Your task to perform on an android device: Clear the cart on walmart. Add "macbook air" to the cart on walmart, then select checkout. Image 0: 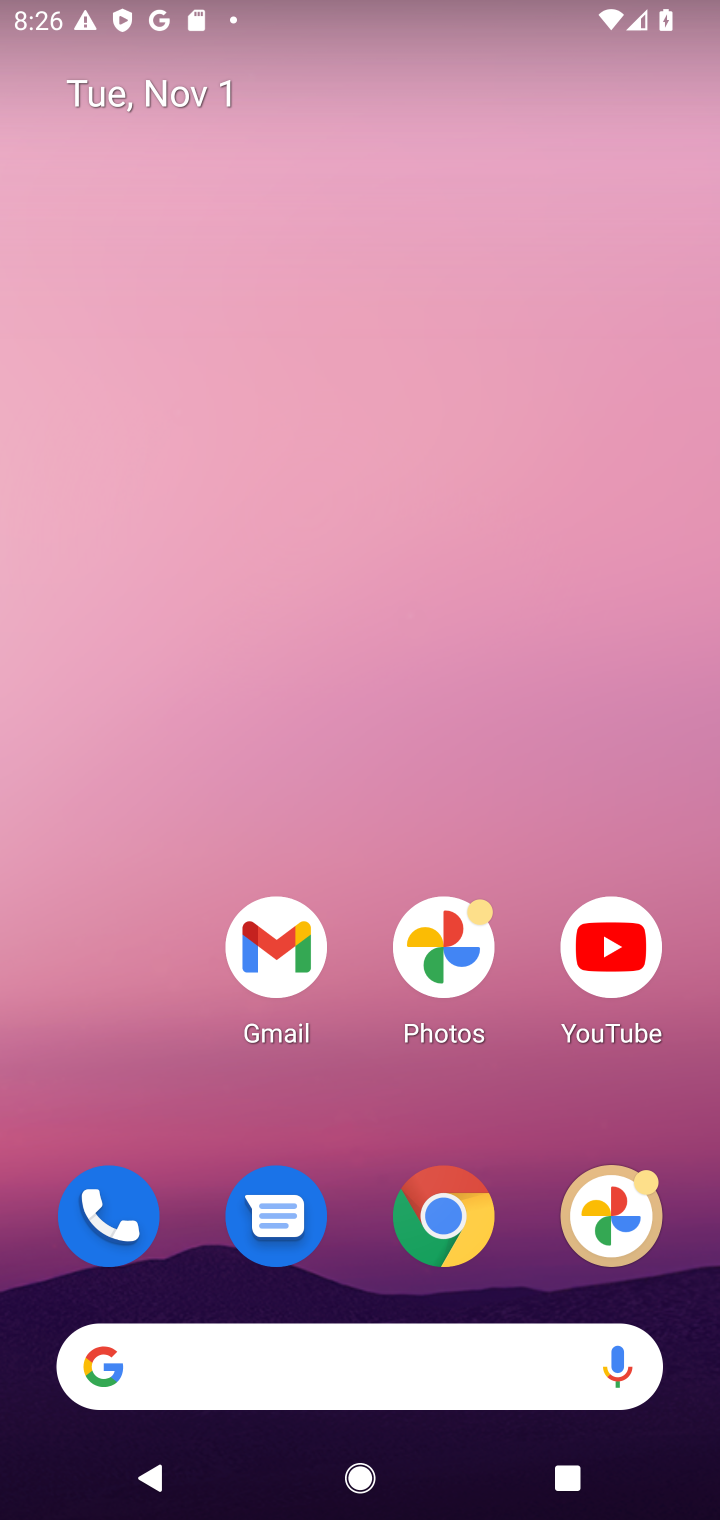
Step 0: click (440, 1215)
Your task to perform on an android device: Clear the cart on walmart. Add "macbook air" to the cart on walmart, then select checkout. Image 1: 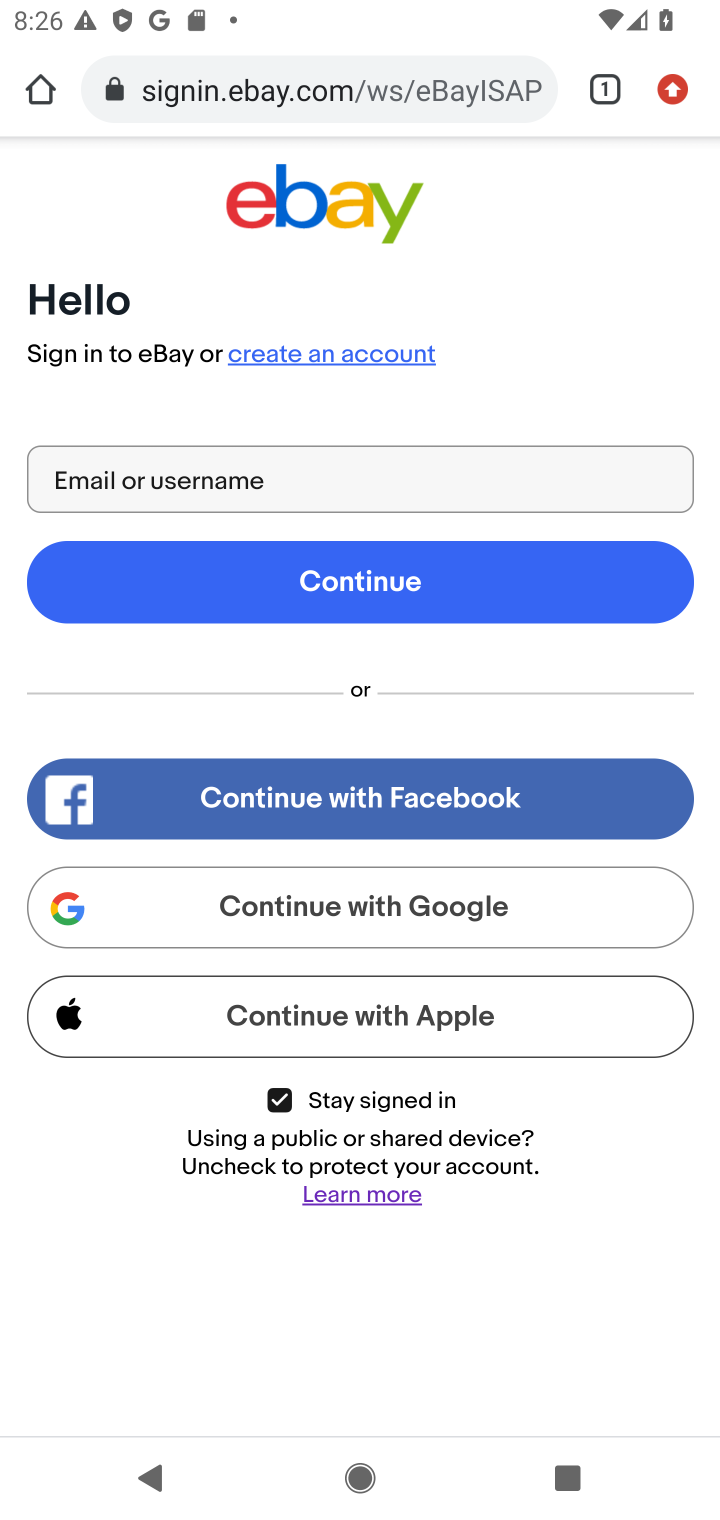
Step 1: click (399, 79)
Your task to perform on an android device: Clear the cart on walmart. Add "macbook air" to the cart on walmart, then select checkout. Image 2: 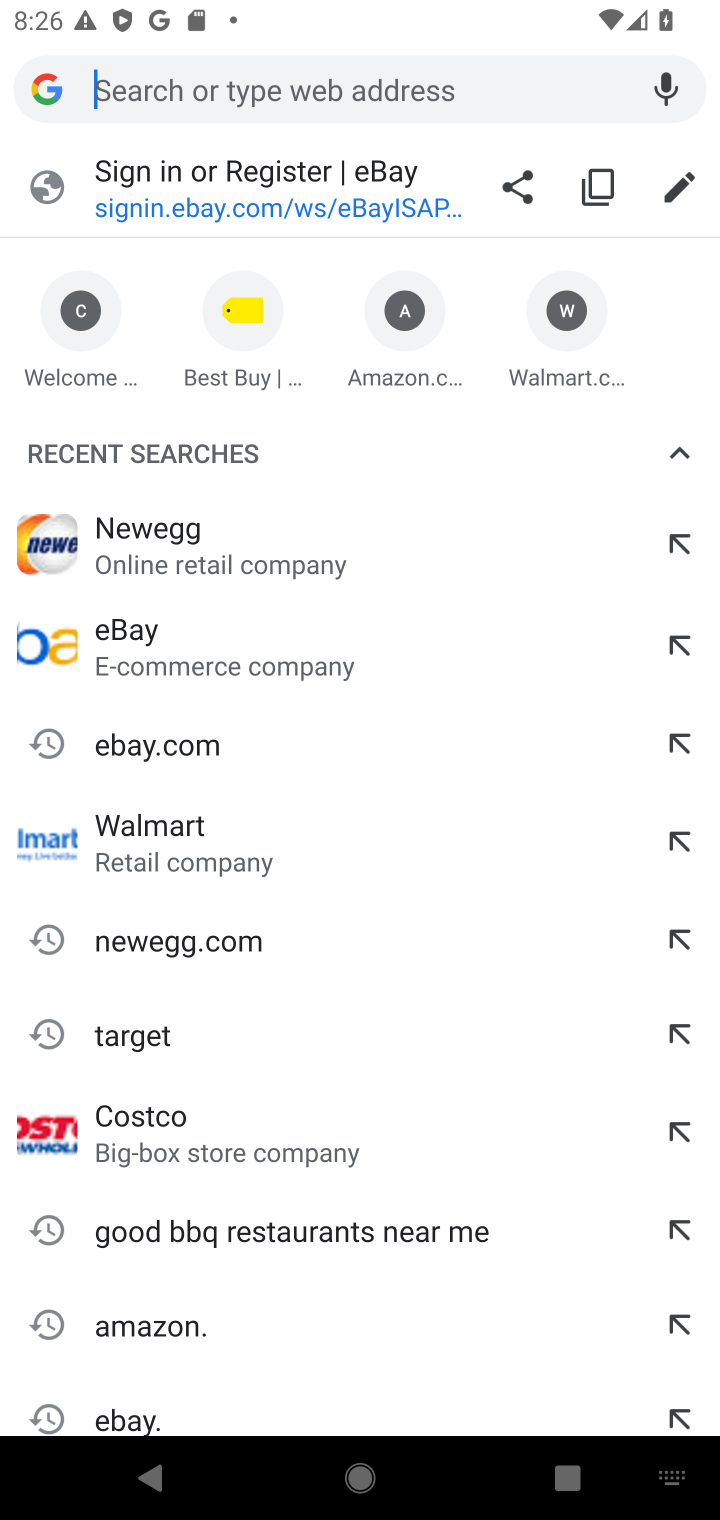
Step 2: type "walmart"
Your task to perform on an android device: Clear the cart on walmart. Add "macbook air" to the cart on walmart, then select checkout. Image 3: 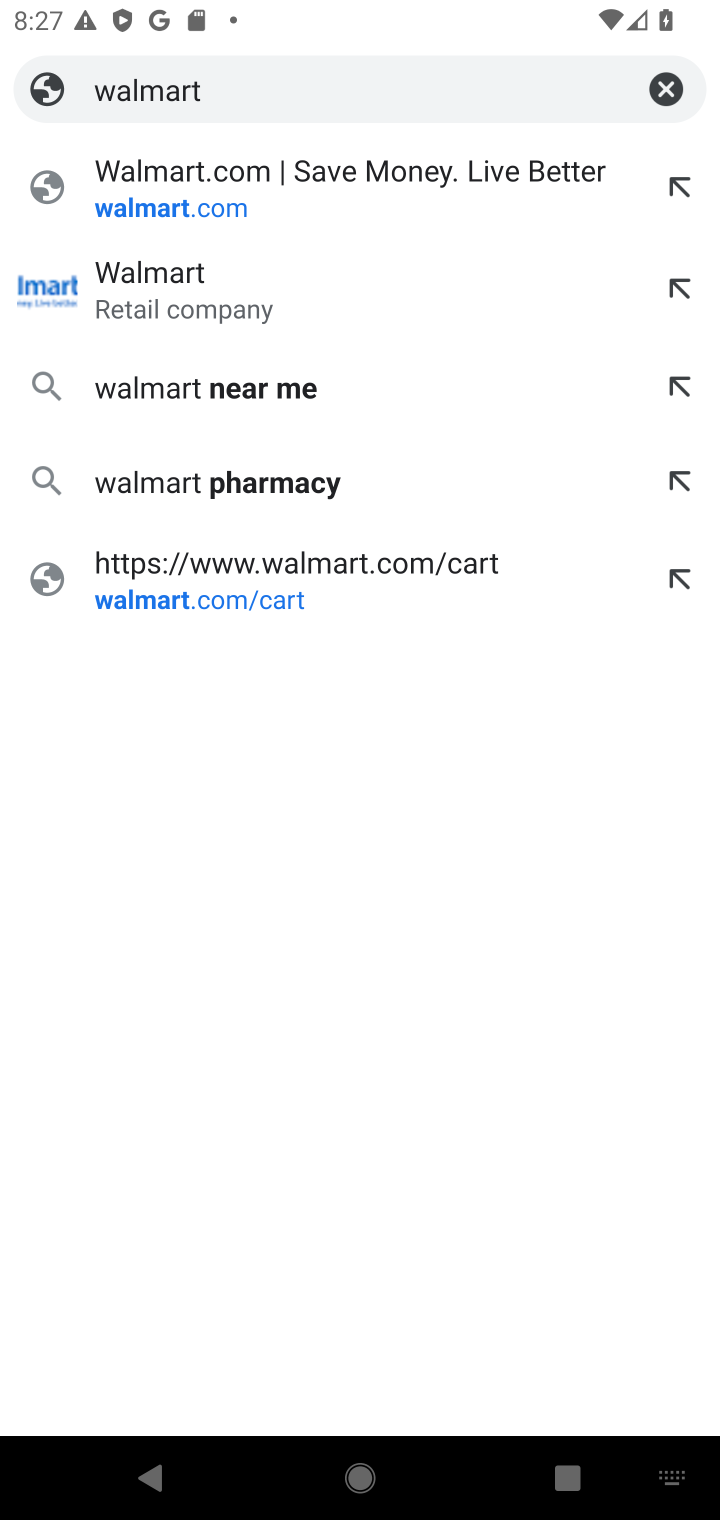
Step 3: click (217, 188)
Your task to perform on an android device: Clear the cart on walmart. Add "macbook air" to the cart on walmart, then select checkout. Image 4: 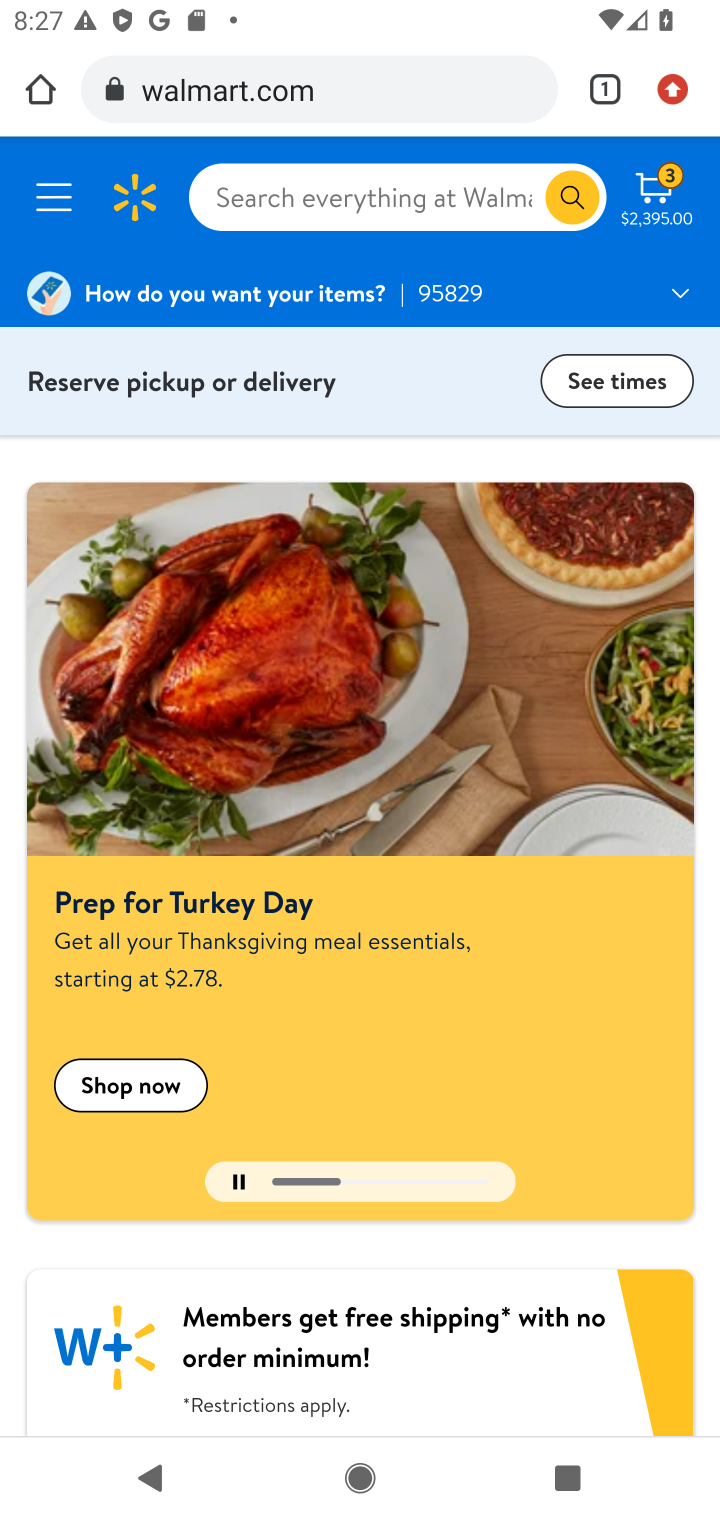
Step 4: click (440, 194)
Your task to perform on an android device: Clear the cart on walmart. Add "macbook air" to the cart on walmart, then select checkout. Image 5: 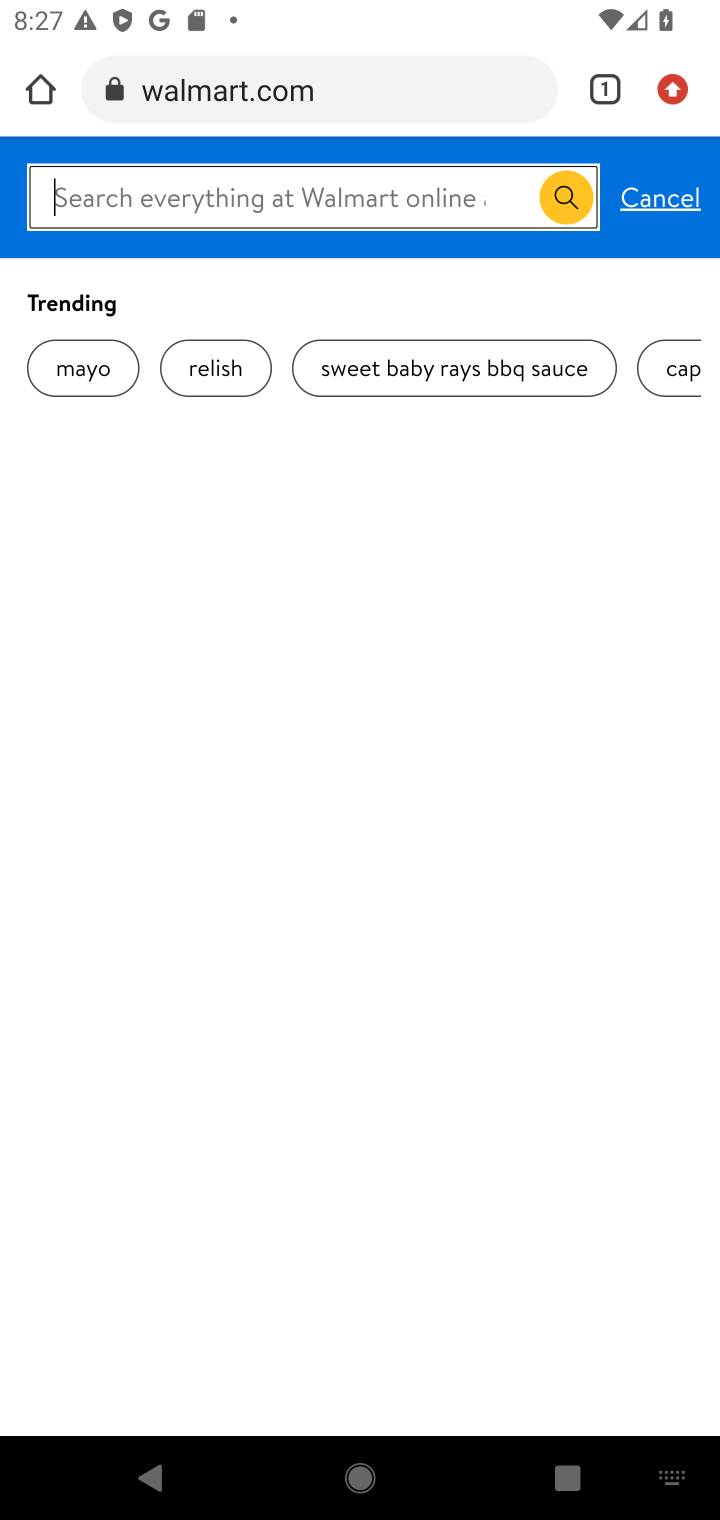
Step 5: type "macbook air"
Your task to perform on an android device: Clear the cart on walmart. Add "macbook air" to the cart on walmart, then select checkout. Image 6: 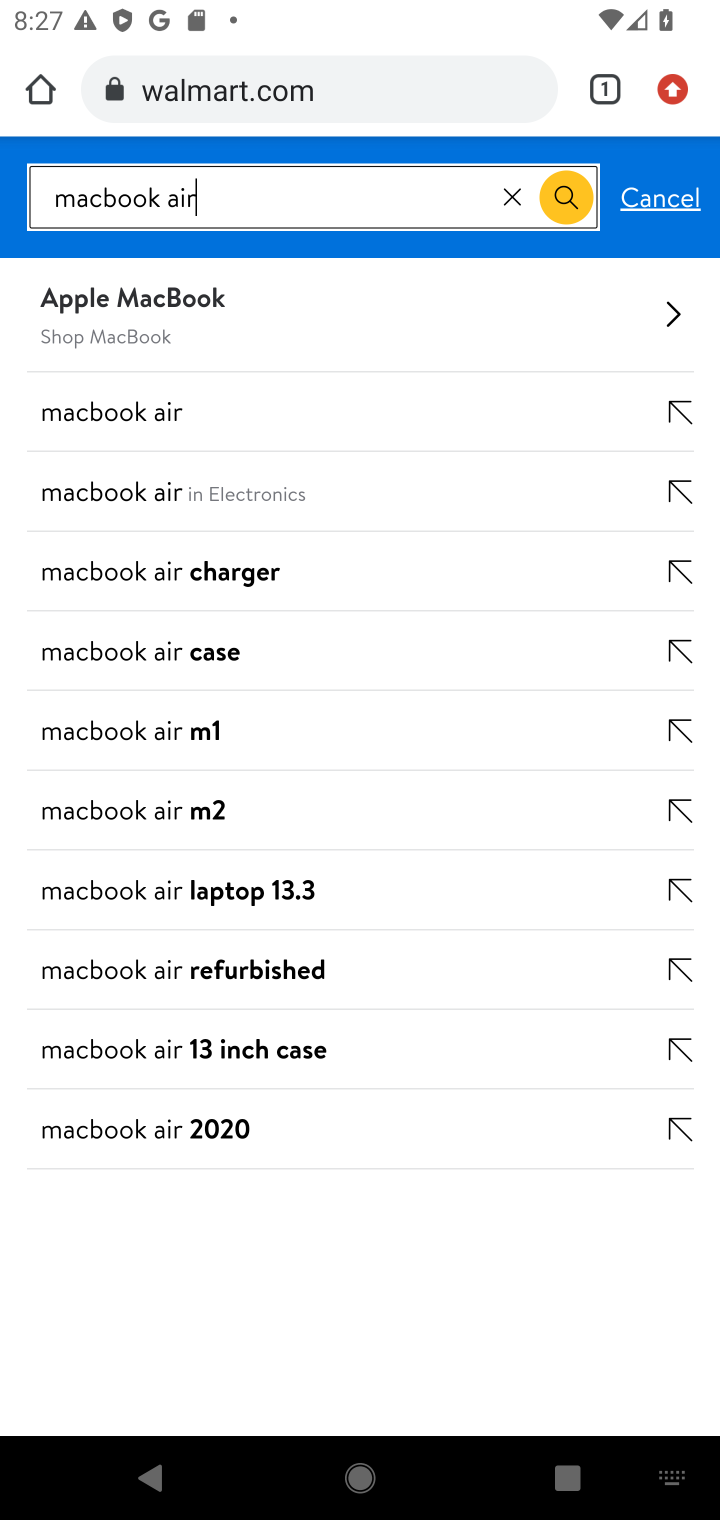
Step 6: click (358, 413)
Your task to perform on an android device: Clear the cart on walmart. Add "macbook air" to the cart on walmart, then select checkout. Image 7: 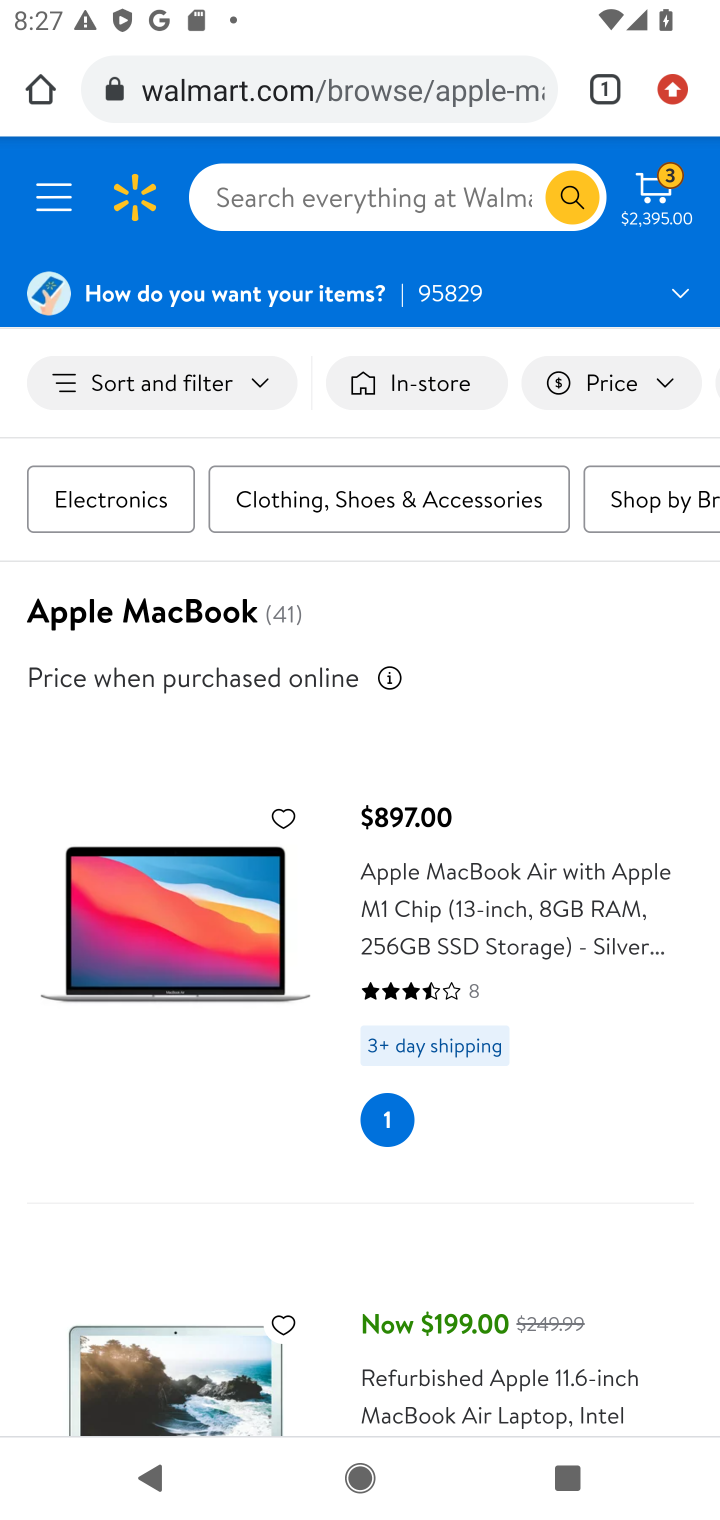
Step 7: click (396, 849)
Your task to perform on an android device: Clear the cart on walmart. Add "macbook air" to the cart on walmart, then select checkout. Image 8: 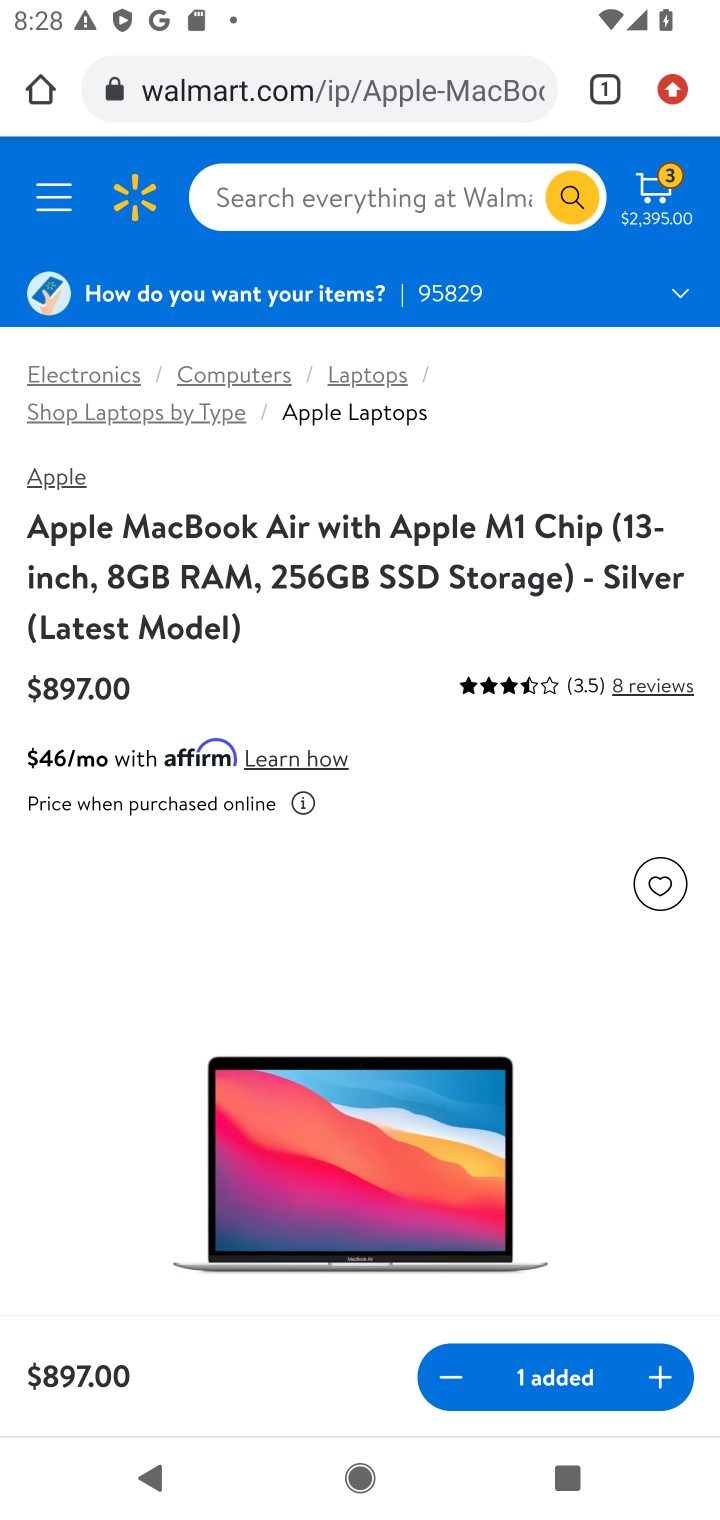
Step 8: click (650, 189)
Your task to perform on an android device: Clear the cart on walmart. Add "macbook air" to the cart on walmart, then select checkout. Image 9: 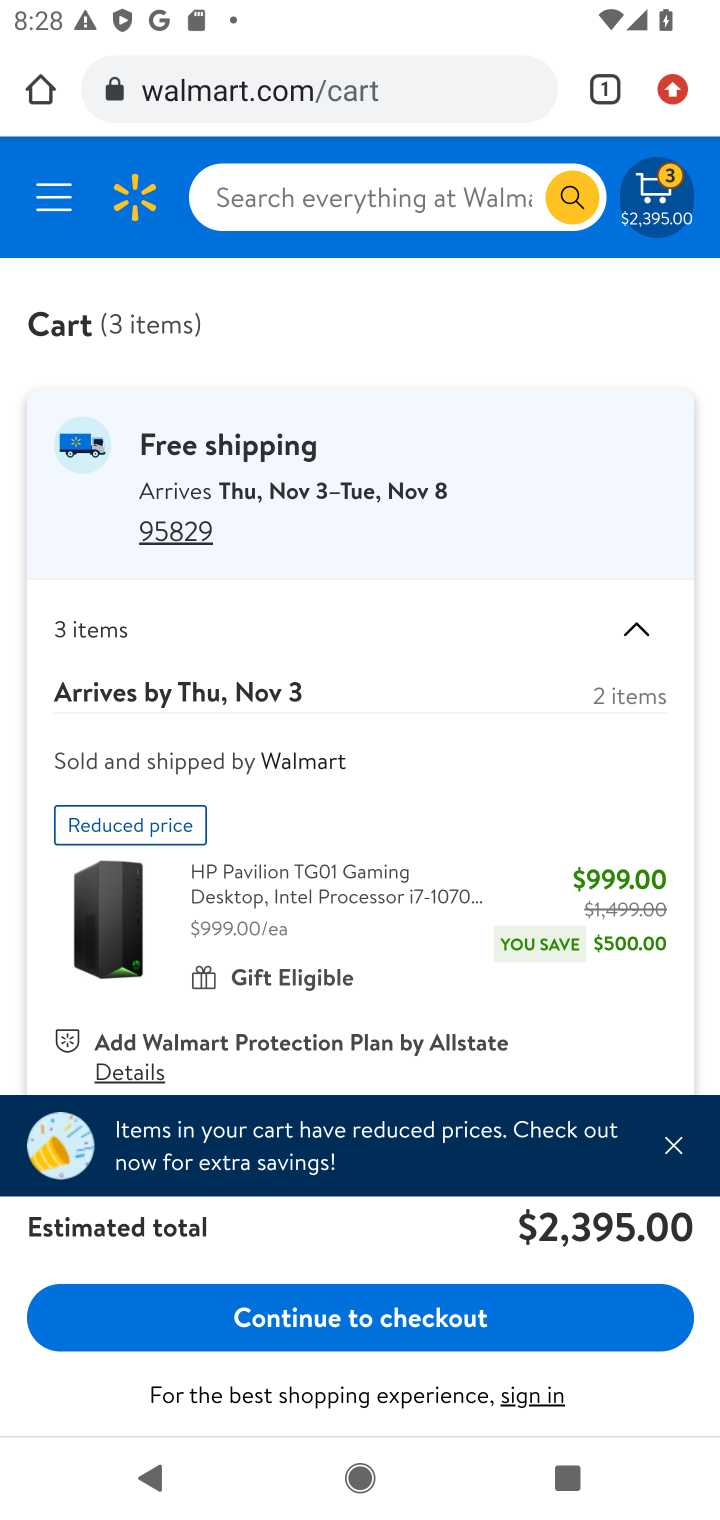
Step 9: click (673, 1136)
Your task to perform on an android device: Clear the cart on walmart. Add "macbook air" to the cart on walmart, then select checkout. Image 10: 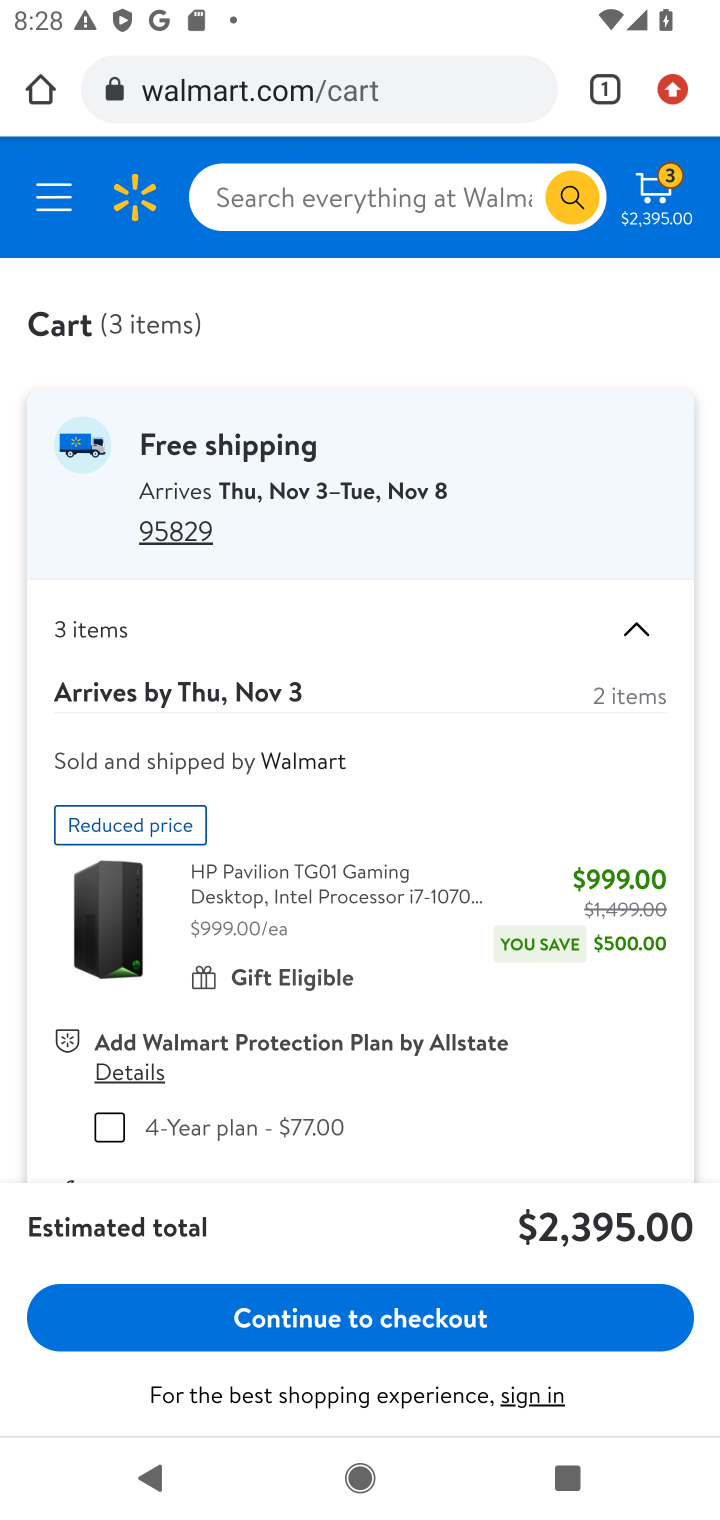
Step 10: drag from (369, 1101) to (432, 609)
Your task to perform on an android device: Clear the cart on walmart. Add "macbook air" to the cart on walmart, then select checkout. Image 11: 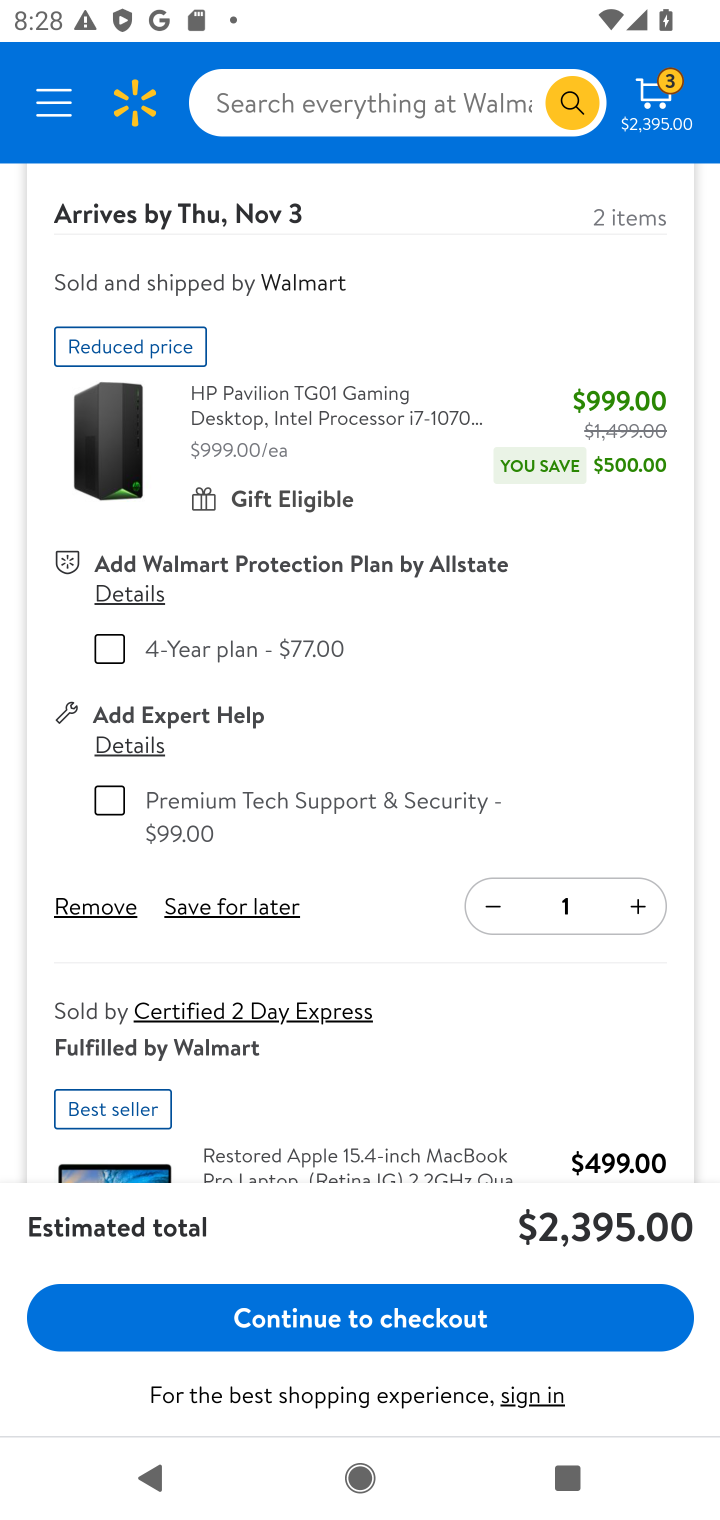
Step 11: click (88, 905)
Your task to perform on an android device: Clear the cart on walmart. Add "macbook air" to the cart on walmart, then select checkout. Image 12: 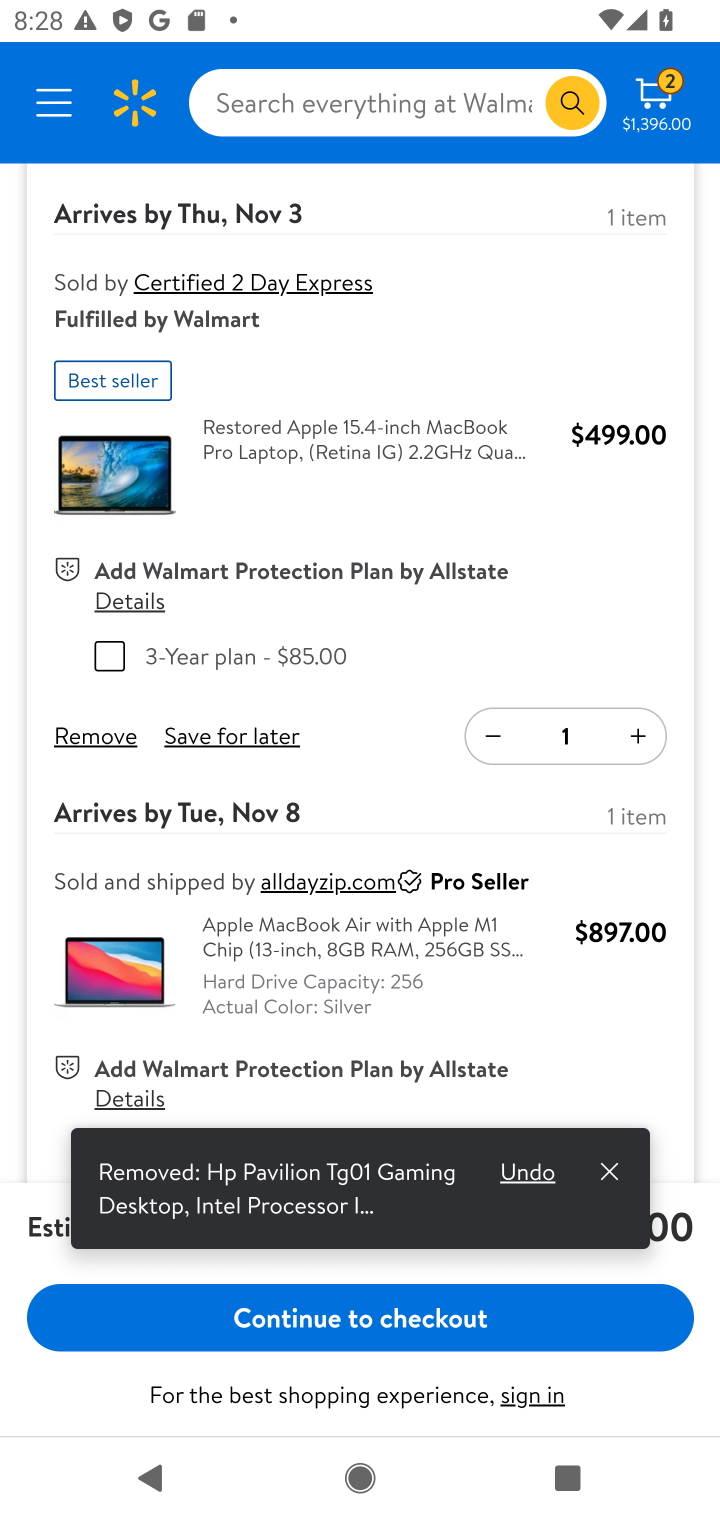
Step 12: click (77, 730)
Your task to perform on an android device: Clear the cart on walmart. Add "macbook air" to the cart on walmart, then select checkout. Image 13: 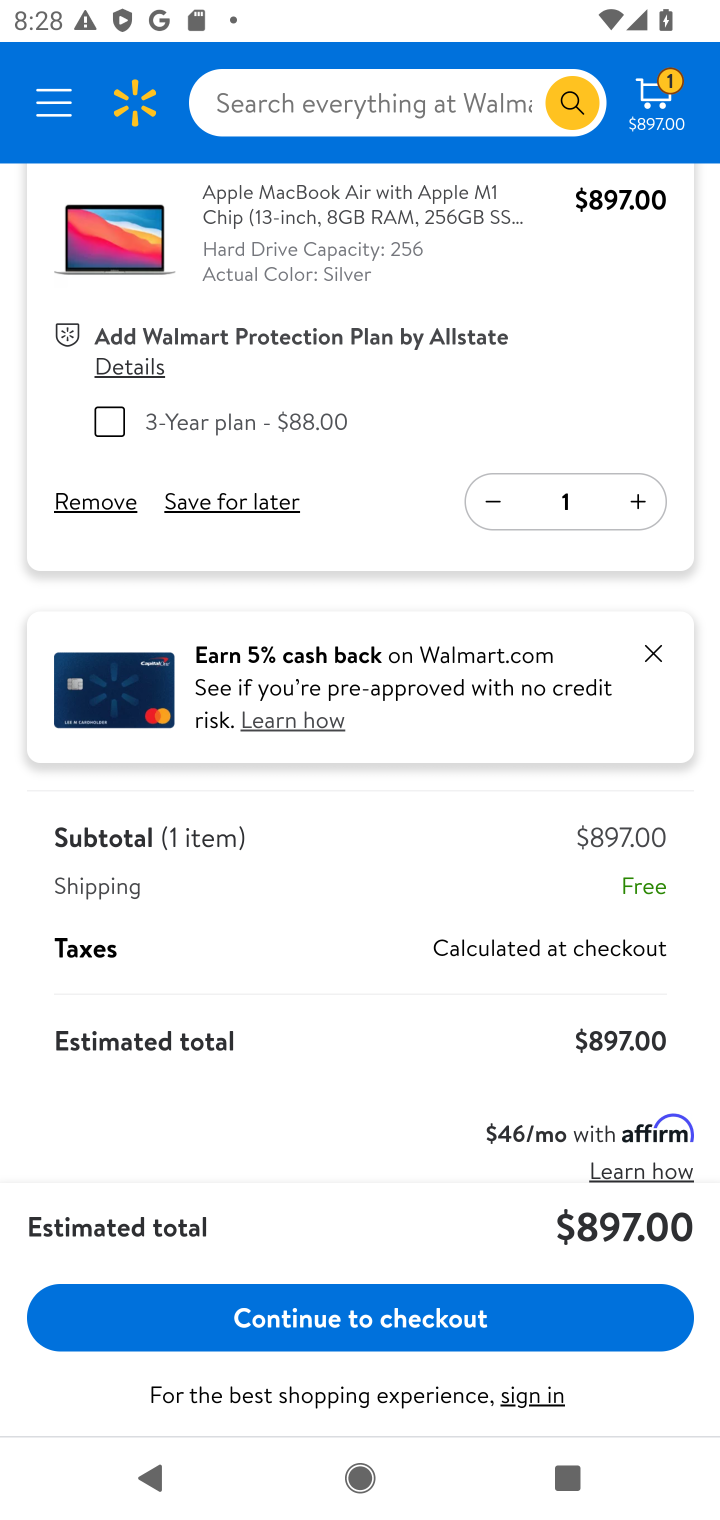
Step 13: click (90, 503)
Your task to perform on an android device: Clear the cart on walmart. Add "macbook air" to the cart on walmart, then select checkout. Image 14: 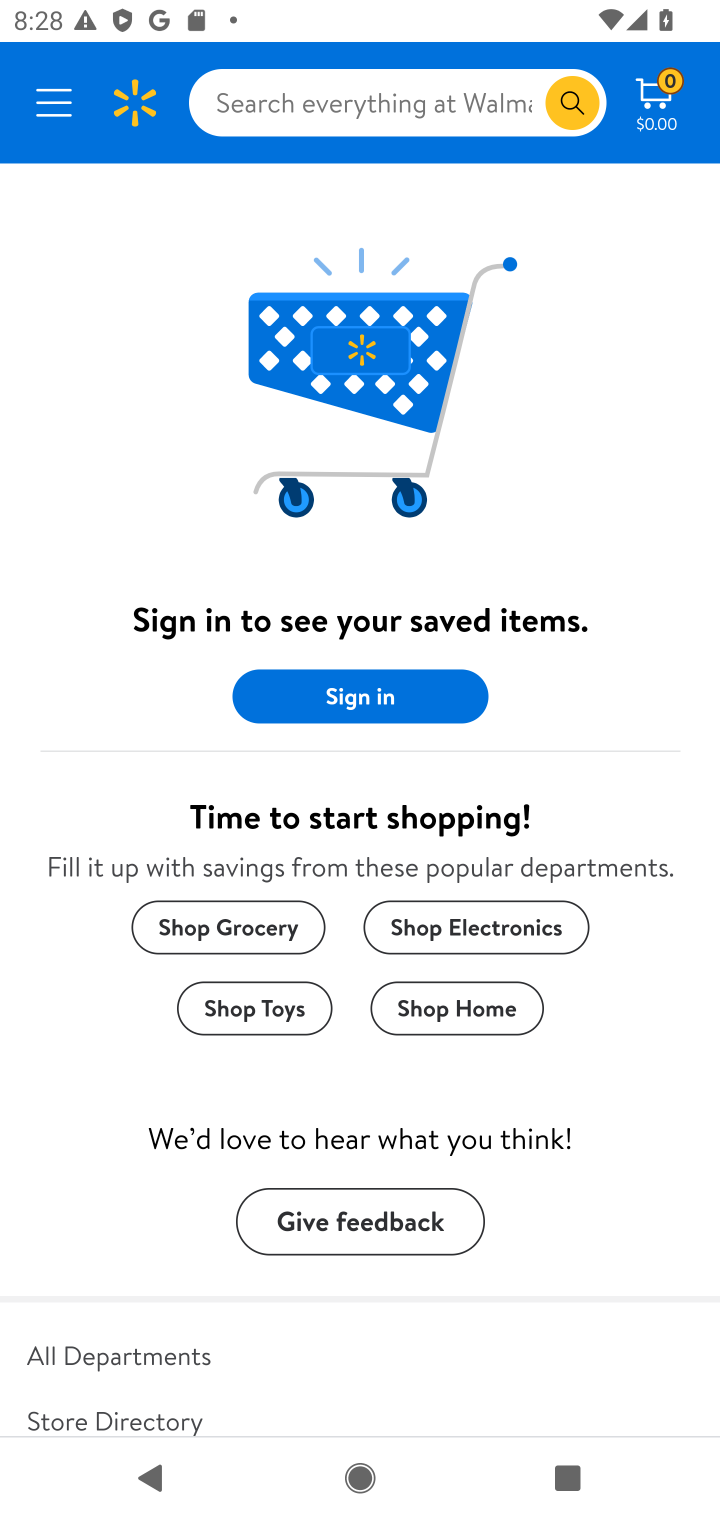
Step 14: press back button
Your task to perform on an android device: Clear the cart on walmart. Add "macbook air" to the cart on walmart, then select checkout. Image 15: 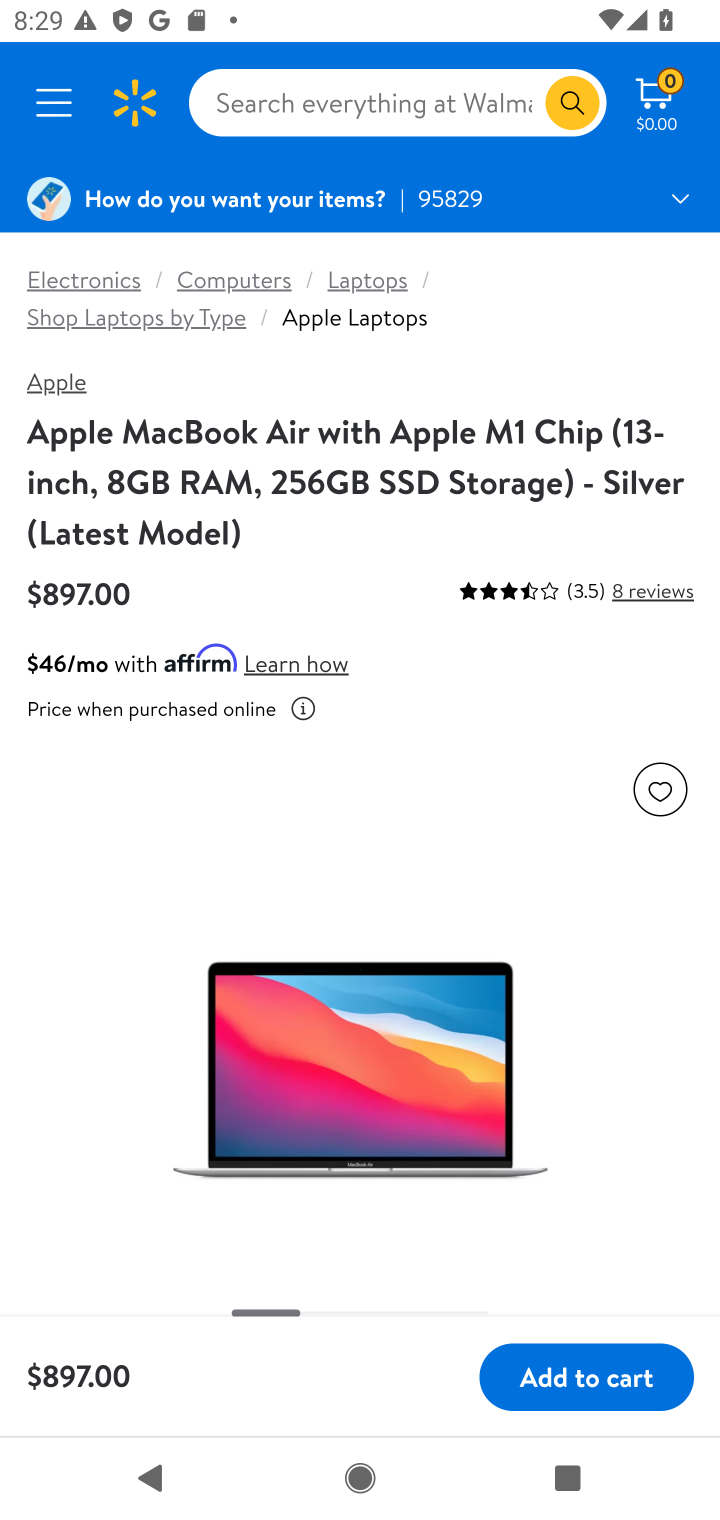
Step 15: click (555, 1374)
Your task to perform on an android device: Clear the cart on walmart. Add "macbook air" to the cart on walmart, then select checkout. Image 16: 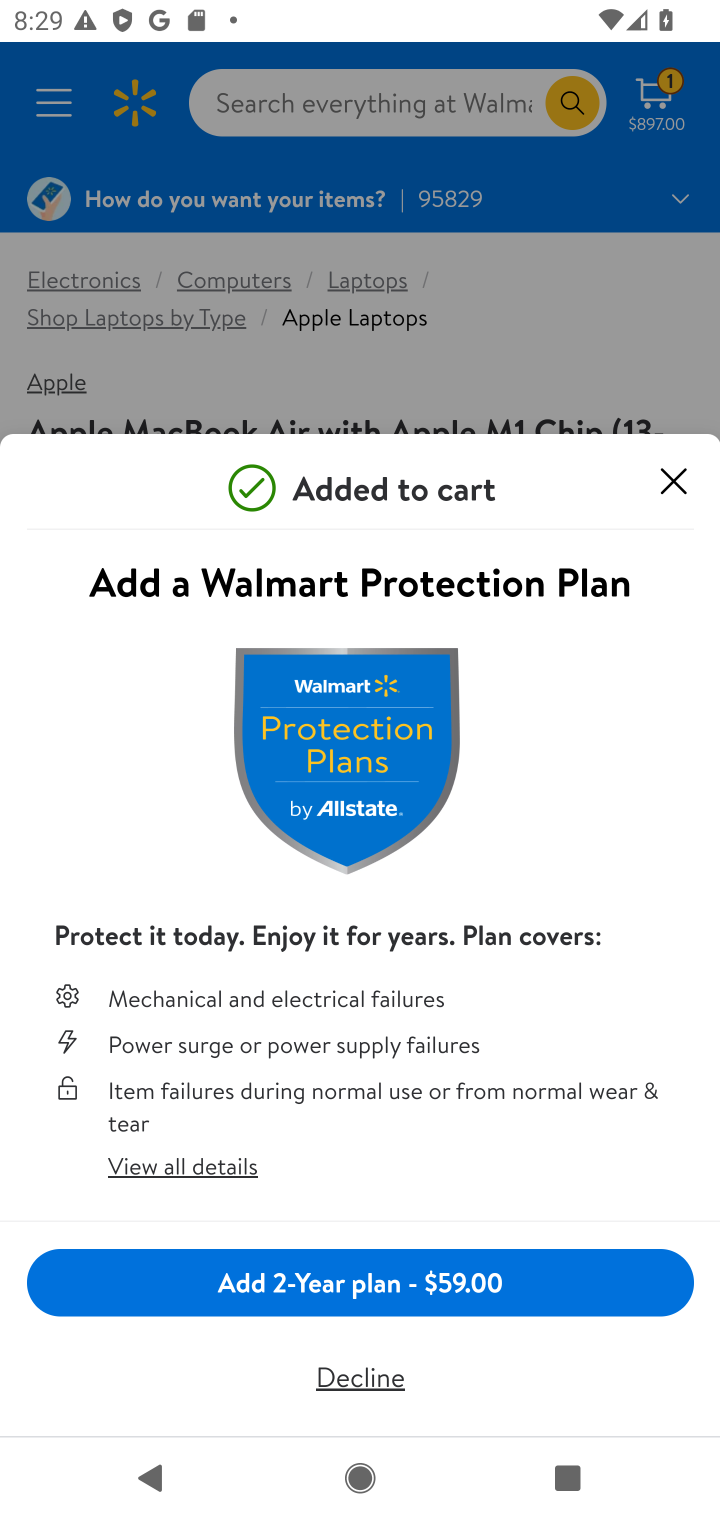
Step 16: click (366, 1372)
Your task to perform on an android device: Clear the cart on walmart. Add "macbook air" to the cart on walmart, then select checkout. Image 17: 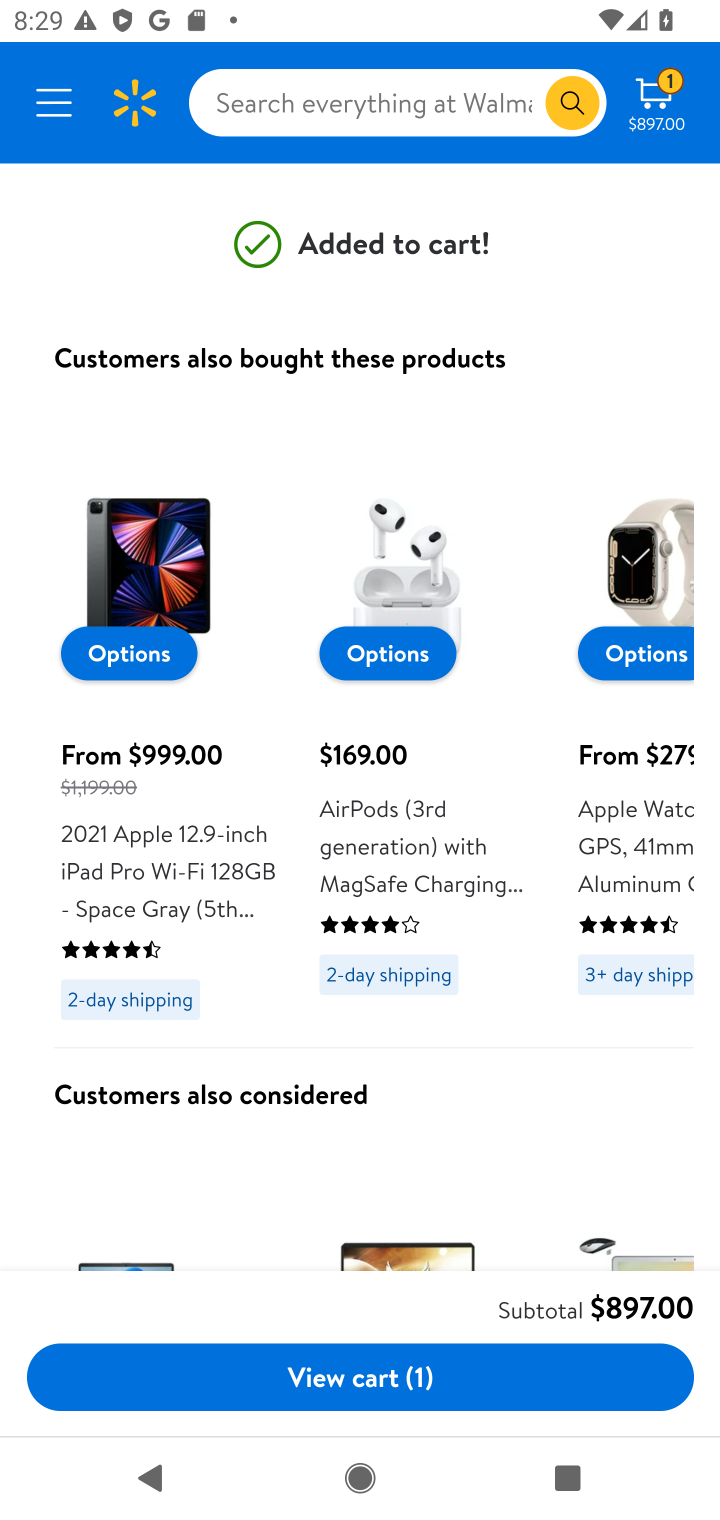
Step 17: click (398, 1372)
Your task to perform on an android device: Clear the cart on walmart. Add "macbook air" to the cart on walmart, then select checkout. Image 18: 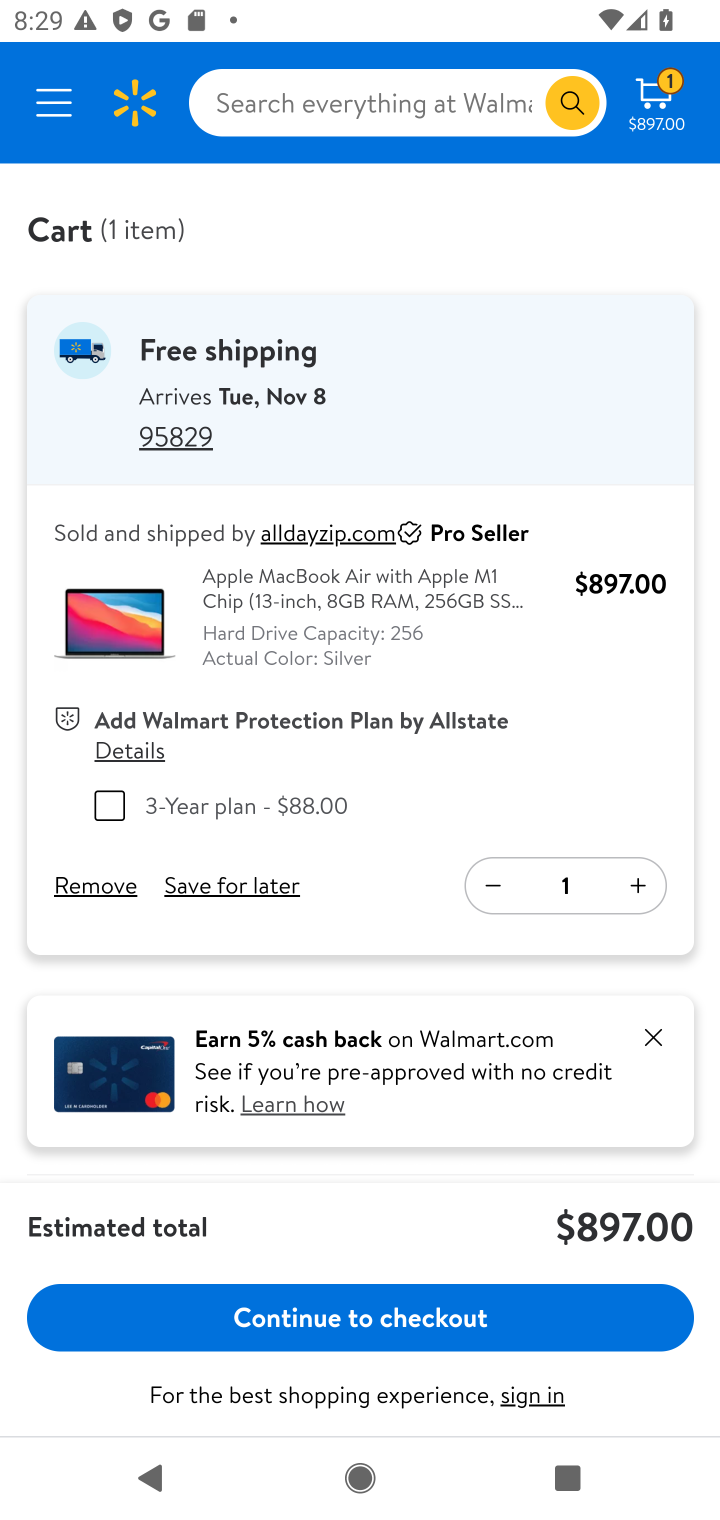
Step 18: click (372, 1328)
Your task to perform on an android device: Clear the cart on walmart. Add "macbook air" to the cart on walmart, then select checkout. Image 19: 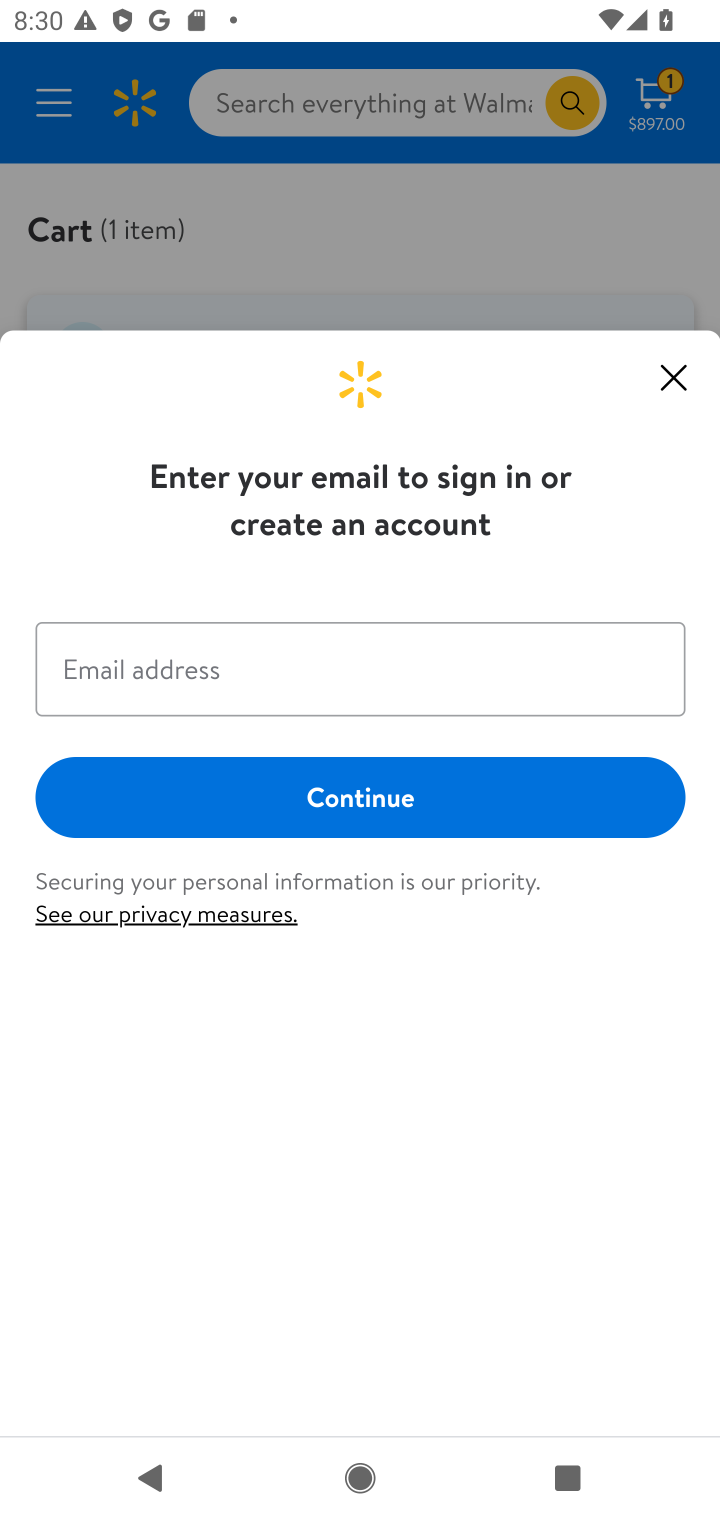
Step 19: click (676, 376)
Your task to perform on an android device: Clear the cart on walmart. Add "macbook air" to the cart on walmart, then select checkout. Image 20: 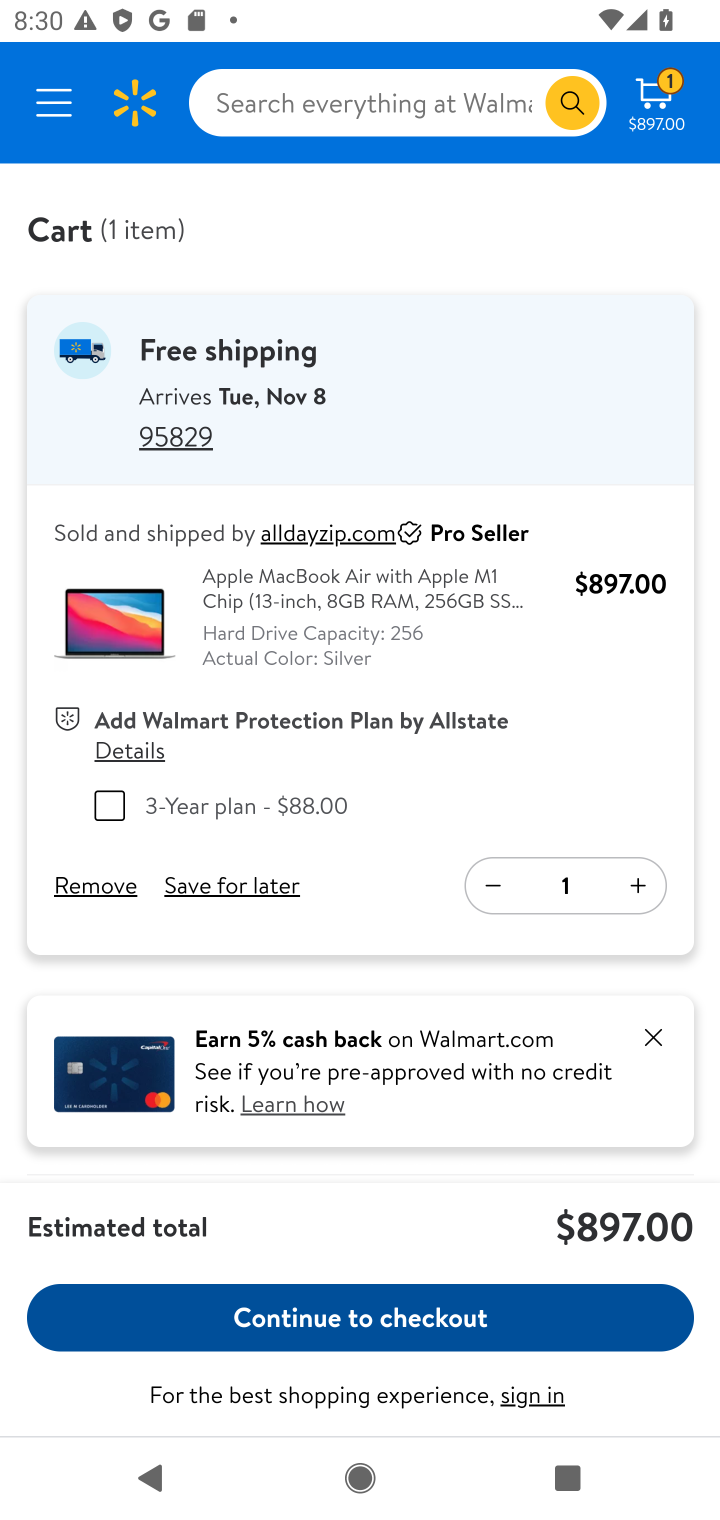
Step 20: click (340, 97)
Your task to perform on an android device: Clear the cart on walmart. Add "macbook air" to the cart on walmart, then select checkout. Image 21: 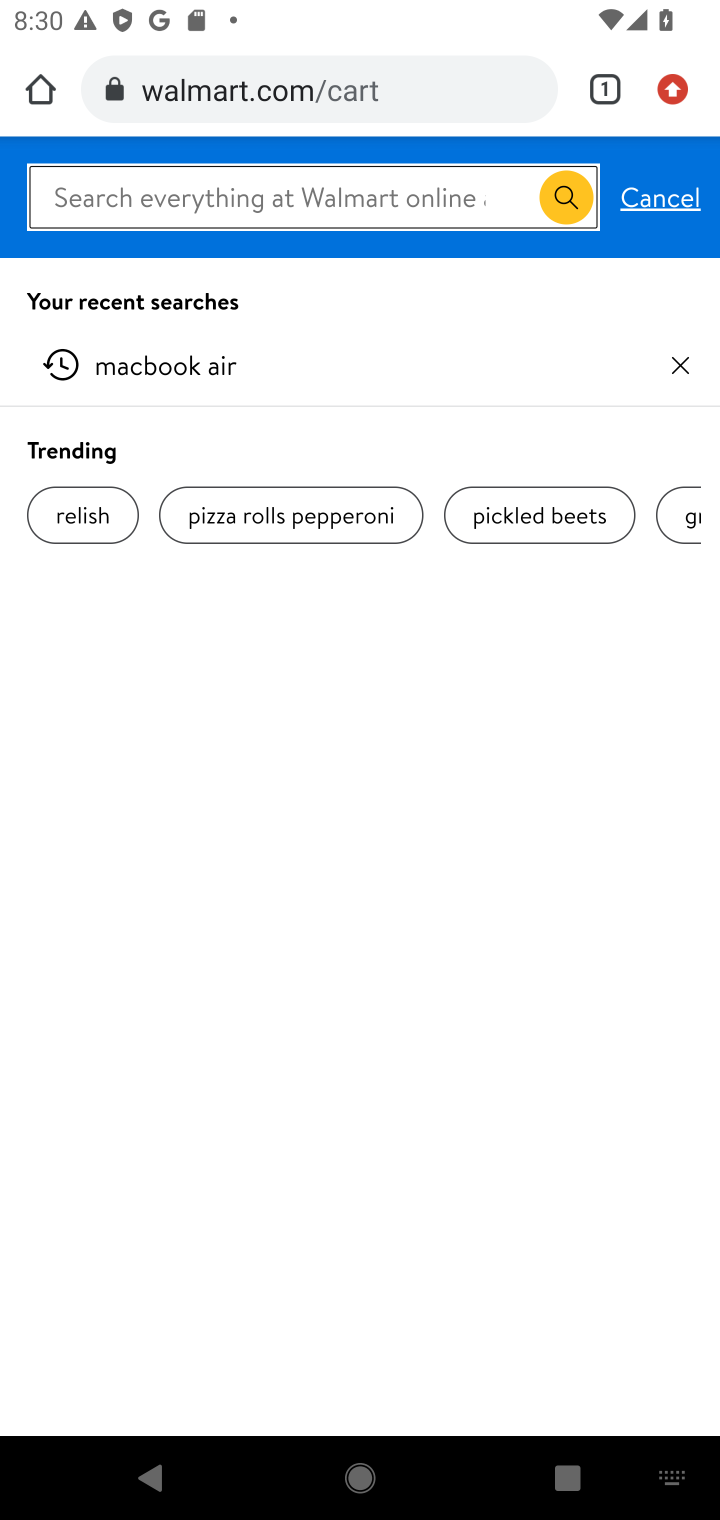
Step 21: type "macbook air"
Your task to perform on an android device: Clear the cart on walmart. Add "macbook air" to the cart on walmart, then select checkout. Image 22: 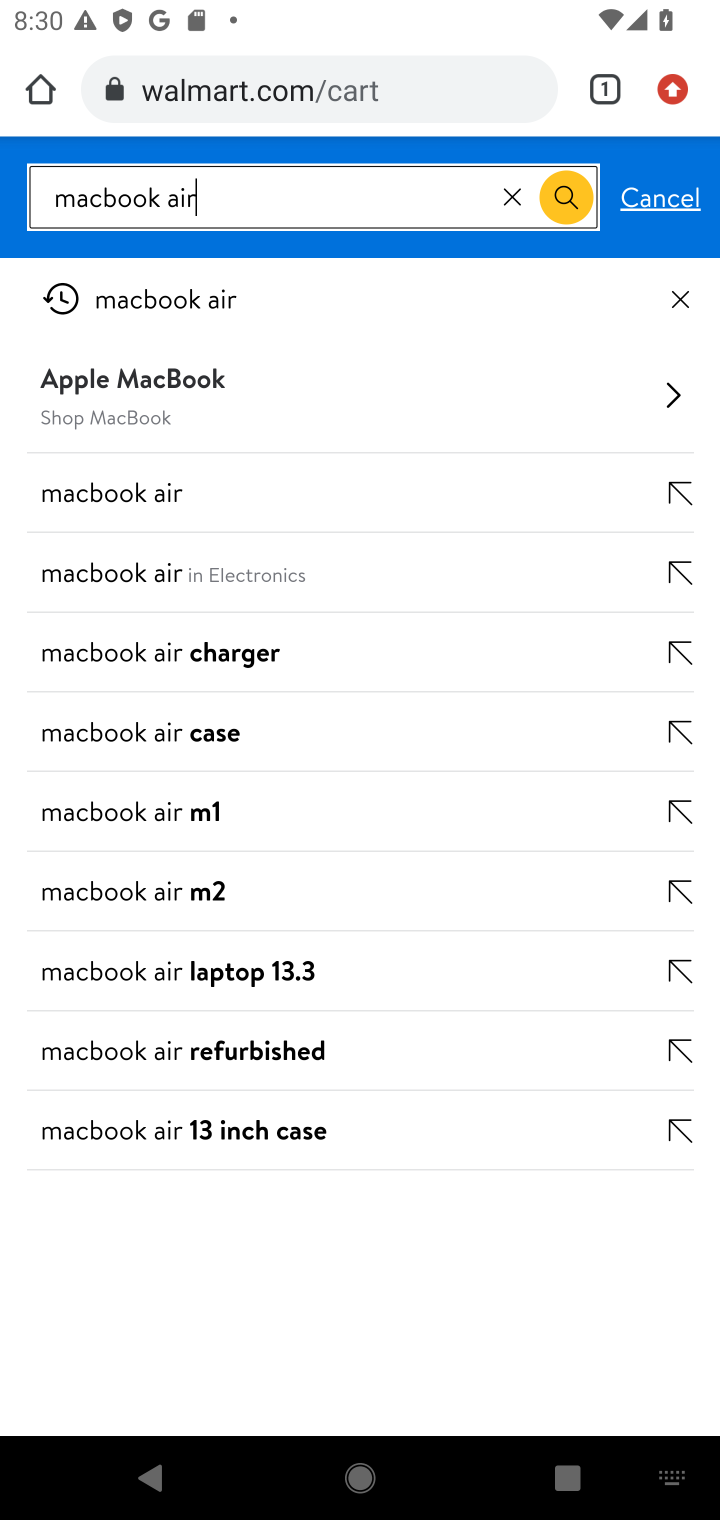
Step 22: click (133, 494)
Your task to perform on an android device: Clear the cart on walmart. Add "macbook air" to the cart on walmart, then select checkout. Image 23: 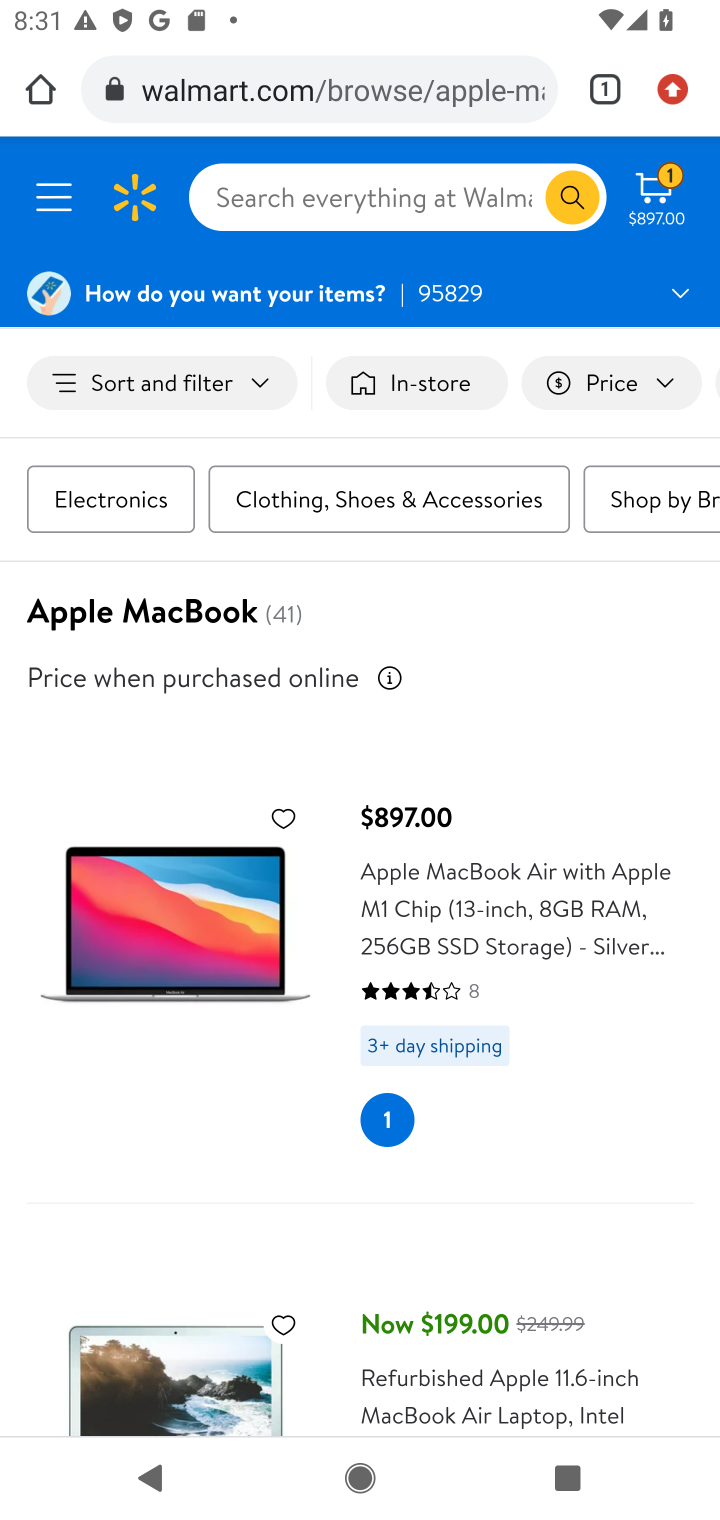
Step 23: click (661, 206)
Your task to perform on an android device: Clear the cart on walmart. Add "macbook air" to the cart on walmart, then select checkout. Image 24: 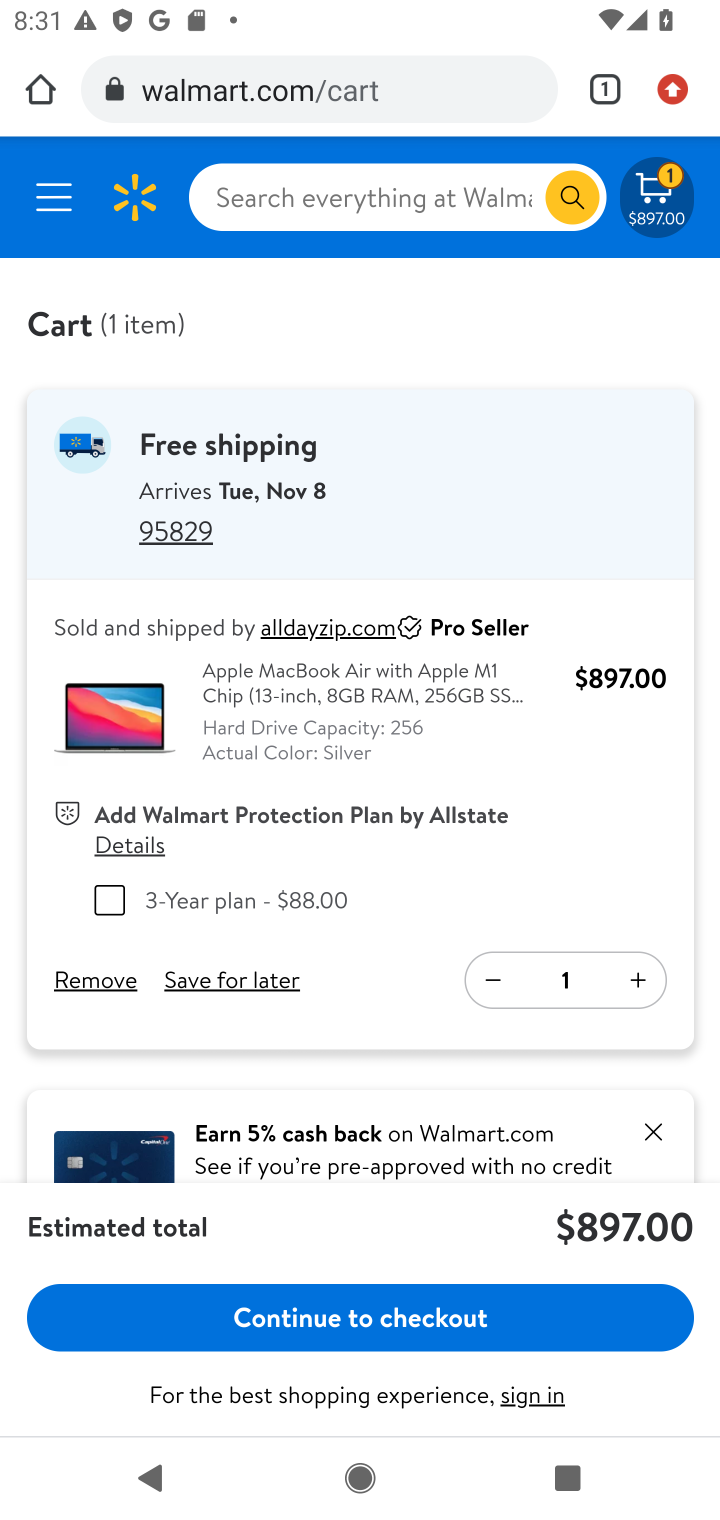
Step 24: click (94, 974)
Your task to perform on an android device: Clear the cart on walmart. Add "macbook air" to the cart on walmart, then select checkout. Image 25: 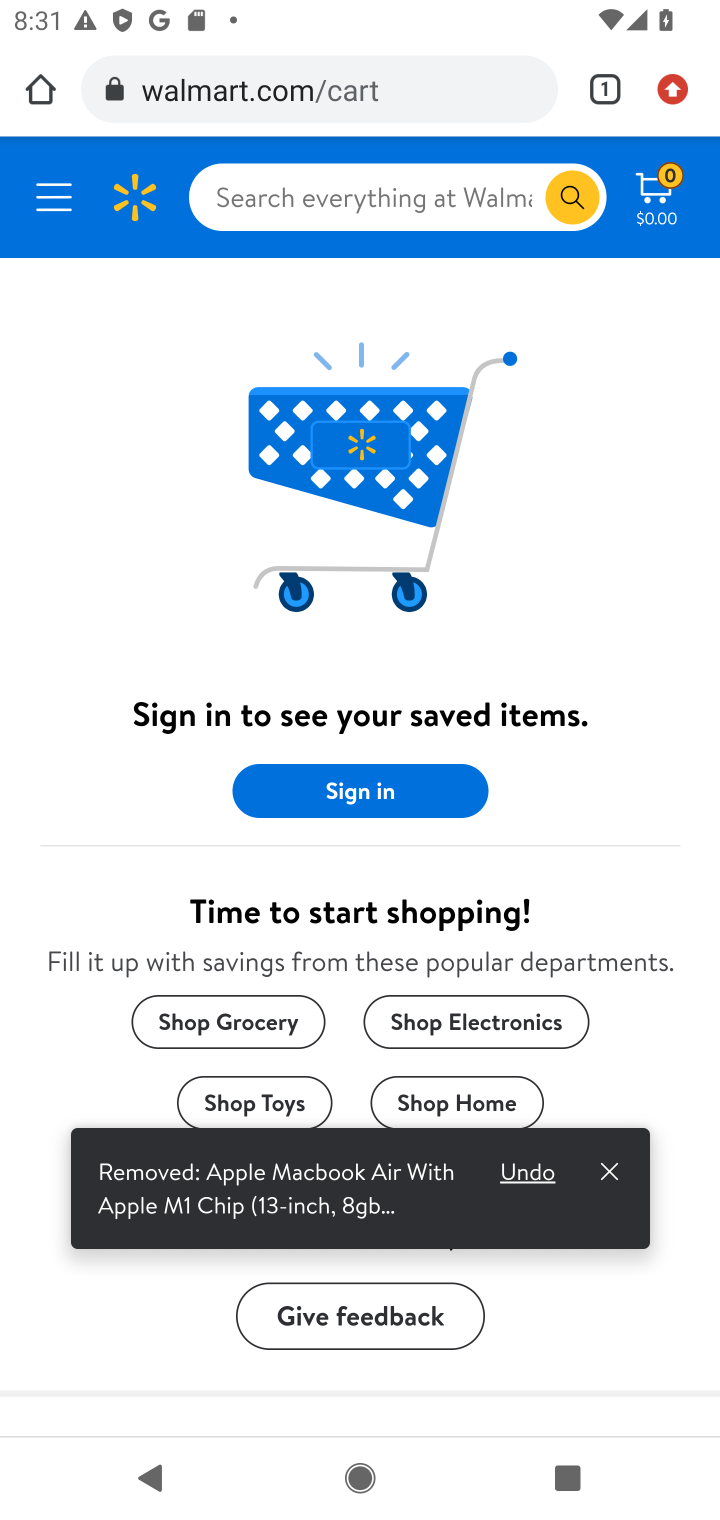
Step 25: click (331, 191)
Your task to perform on an android device: Clear the cart on walmart. Add "macbook air" to the cart on walmart, then select checkout. Image 26: 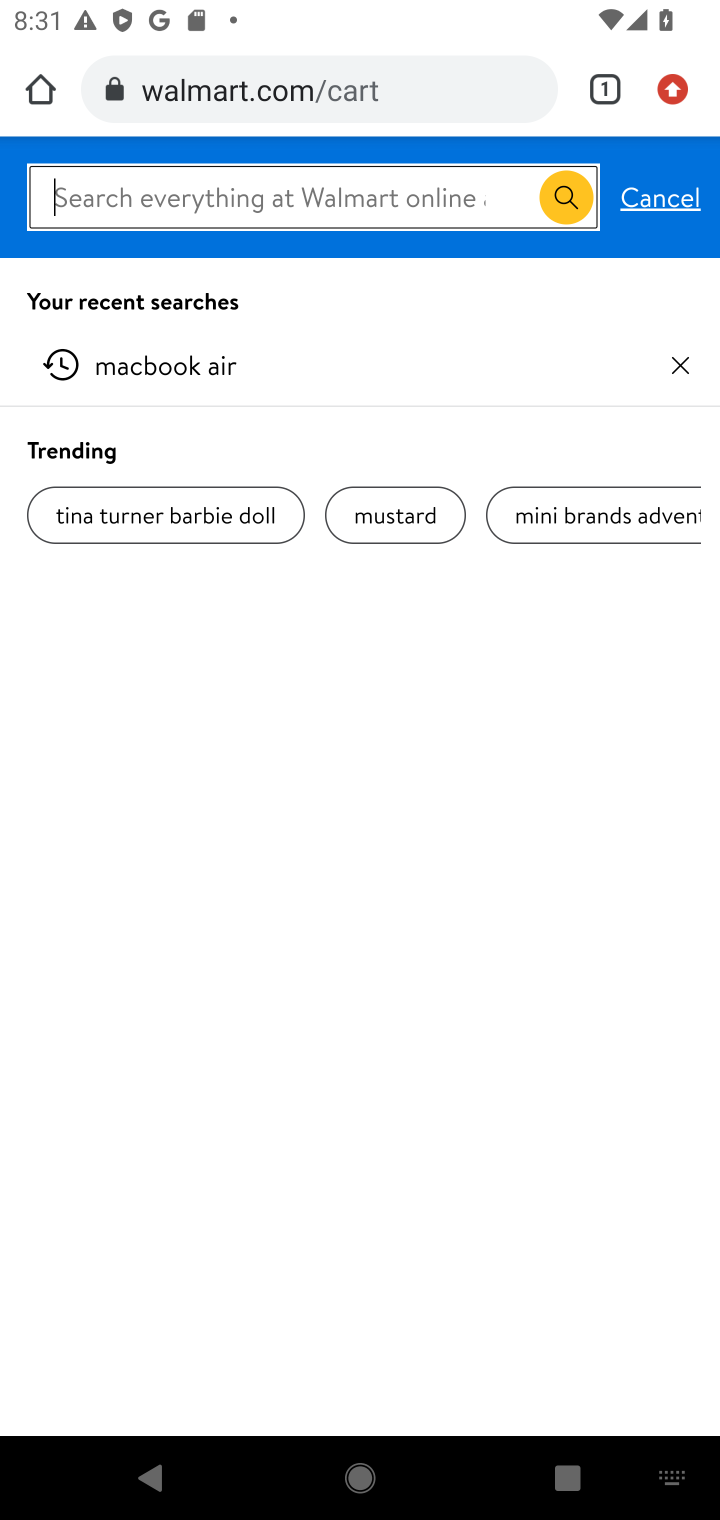
Step 26: type "macbook air"
Your task to perform on an android device: Clear the cart on walmart. Add "macbook air" to the cart on walmart, then select checkout. Image 27: 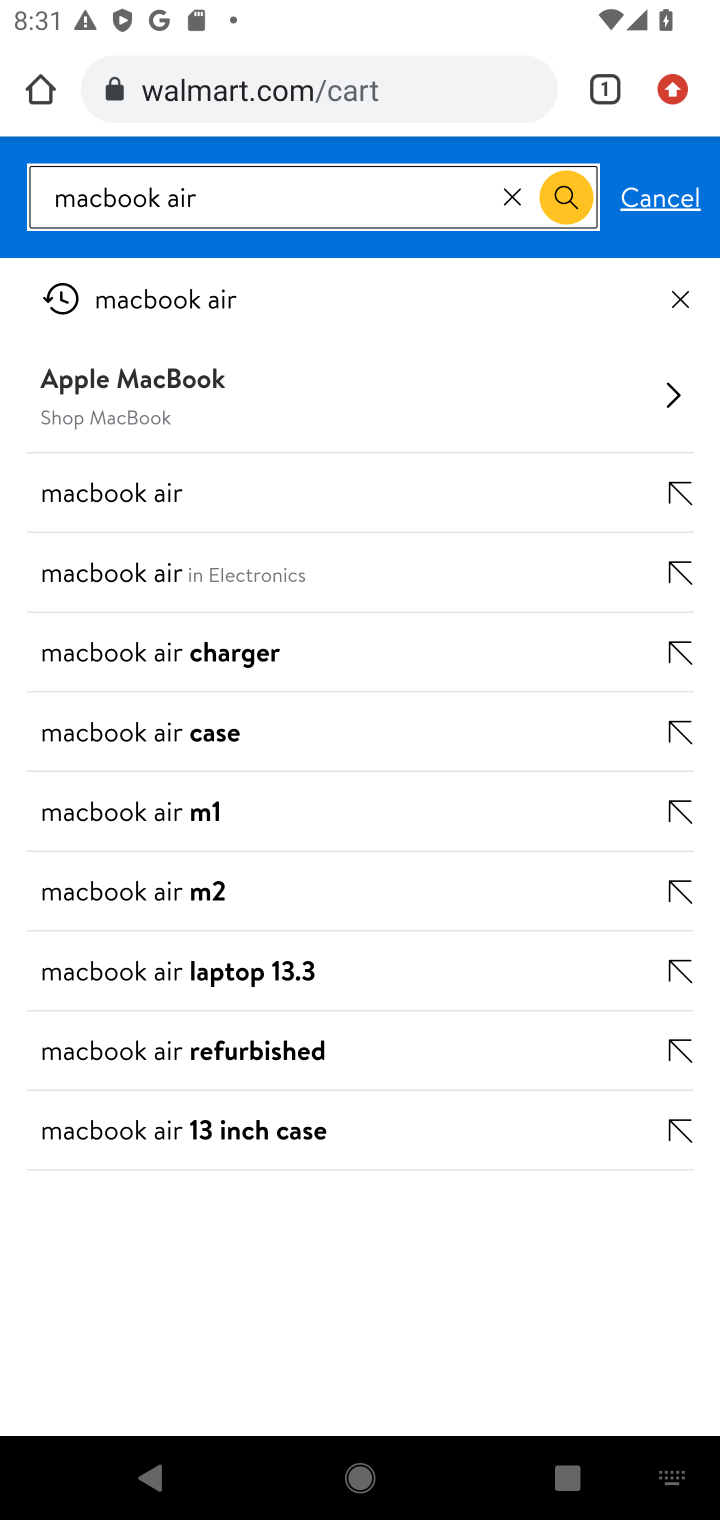
Step 27: click (561, 199)
Your task to perform on an android device: Clear the cart on walmart. Add "macbook air" to the cart on walmart, then select checkout. Image 28: 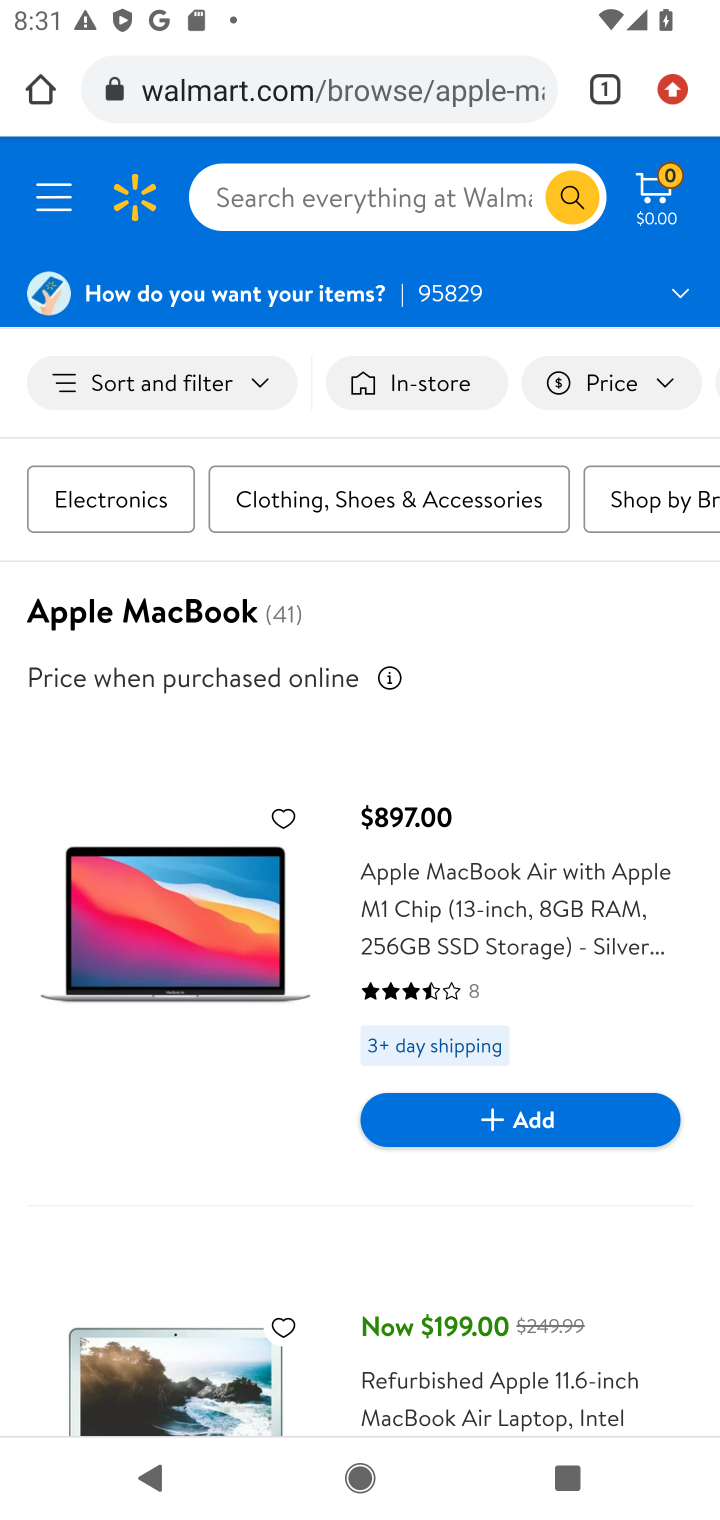
Step 28: click (507, 1118)
Your task to perform on an android device: Clear the cart on walmart. Add "macbook air" to the cart on walmart, then select checkout. Image 29: 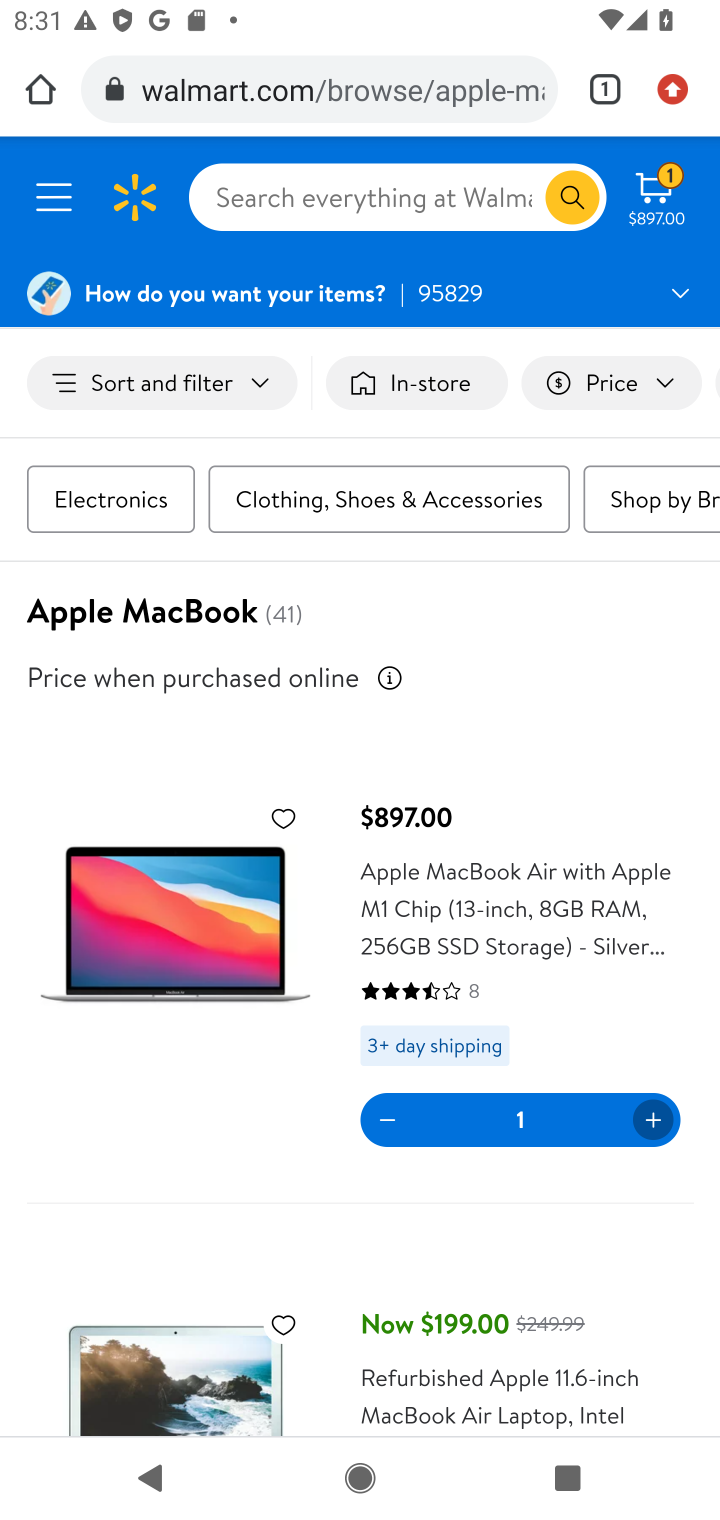
Step 29: task complete